Your task to perform on an android device: What's on my calendar tomorrow? Image 0: 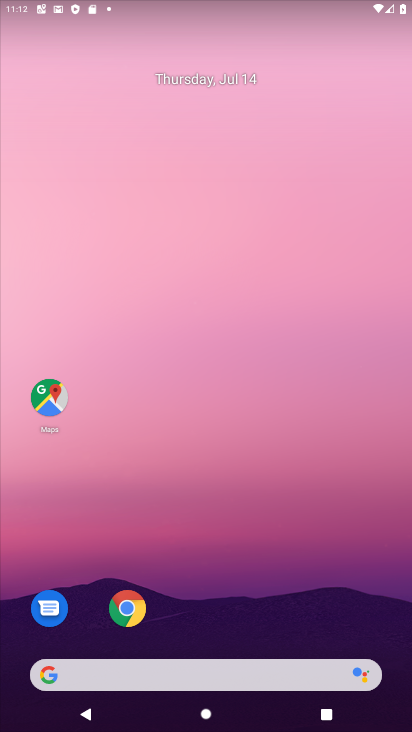
Step 0: drag from (303, 610) to (280, 0)
Your task to perform on an android device: What's on my calendar tomorrow? Image 1: 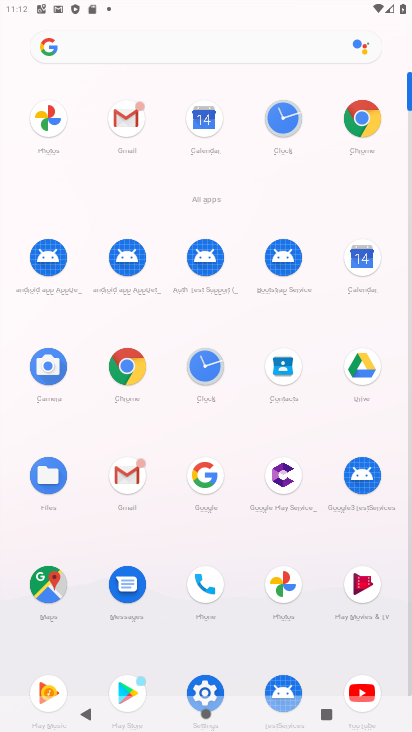
Step 1: click (351, 259)
Your task to perform on an android device: What's on my calendar tomorrow? Image 2: 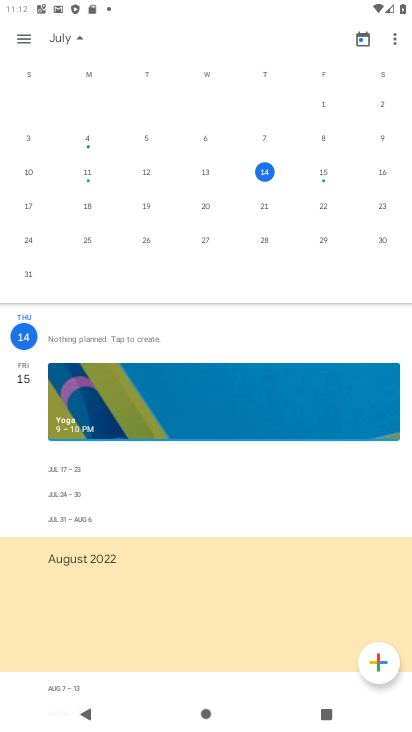
Step 2: click (321, 172)
Your task to perform on an android device: What's on my calendar tomorrow? Image 3: 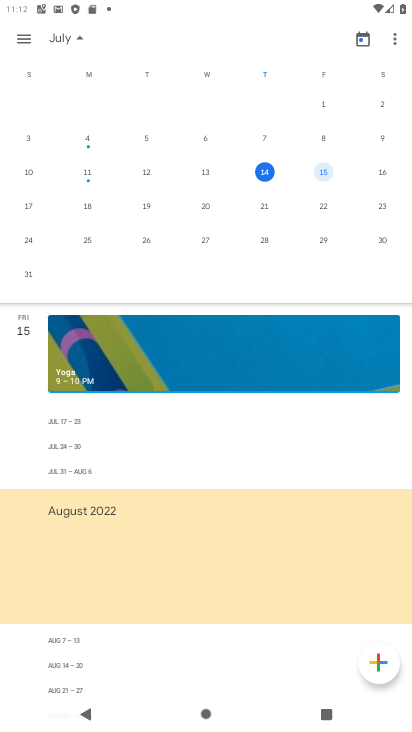
Step 3: task complete